Your task to perform on an android device: Open Reddit.com Image 0: 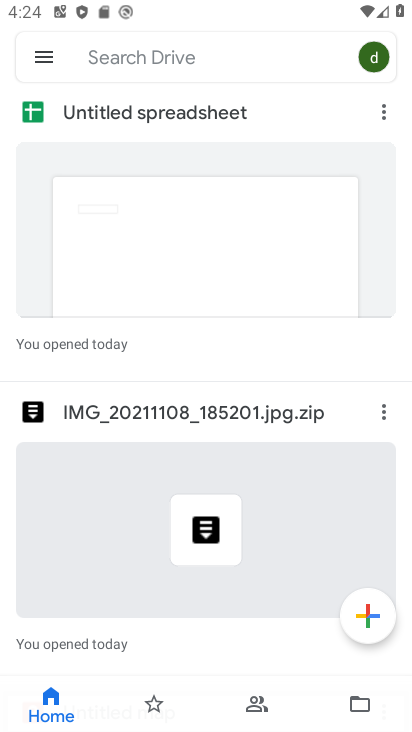
Step 0: press back button
Your task to perform on an android device: Open Reddit.com Image 1: 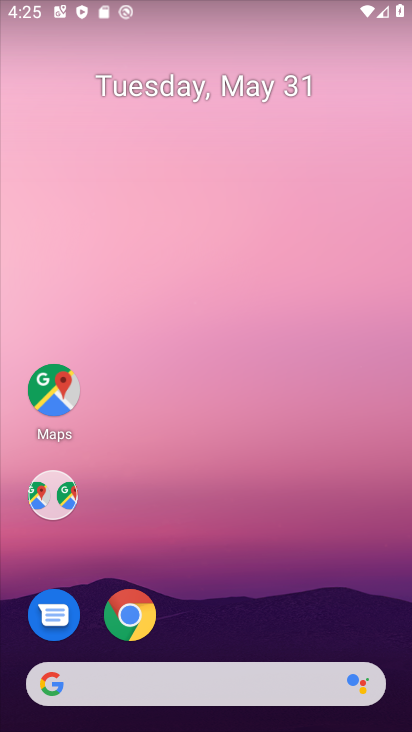
Step 1: drag from (232, 705) to (111, 226)
Your task to perform on an android device: Open Reddit.com Image 2: 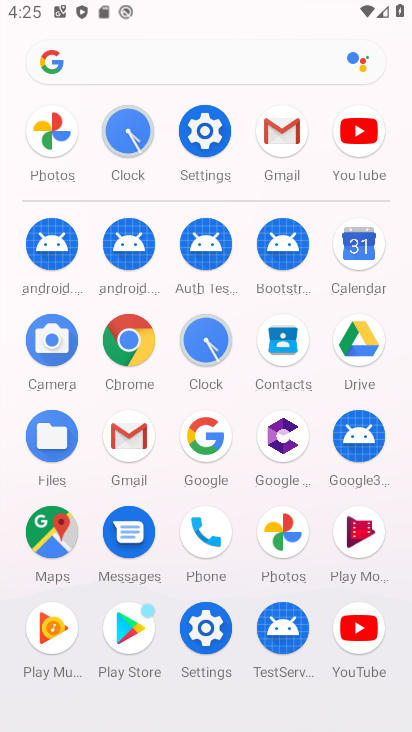
Step 2: click (130, 340)
Your task to perform on an android device: Open Reddit.com Image 3: 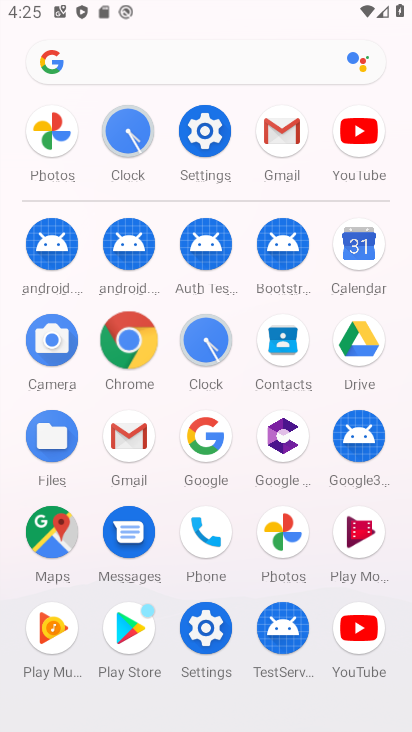
Step 3: click (130, 340)
Your task to perform on an android device: Open Reddit.com Image 4: 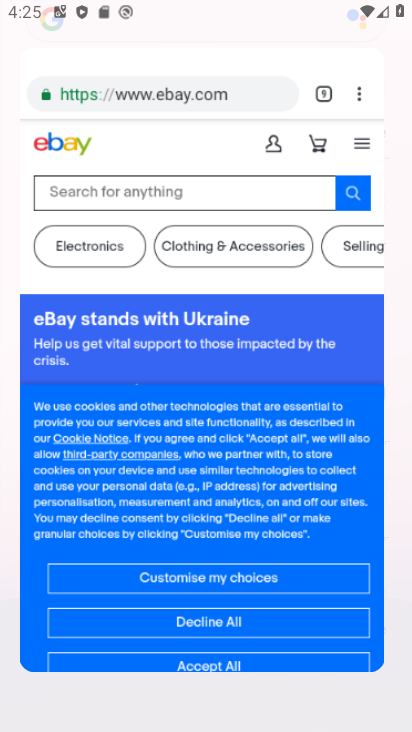
Step 4: click (130, 340)
Your task to perform on an android device: Open Reddit.com Image 5: 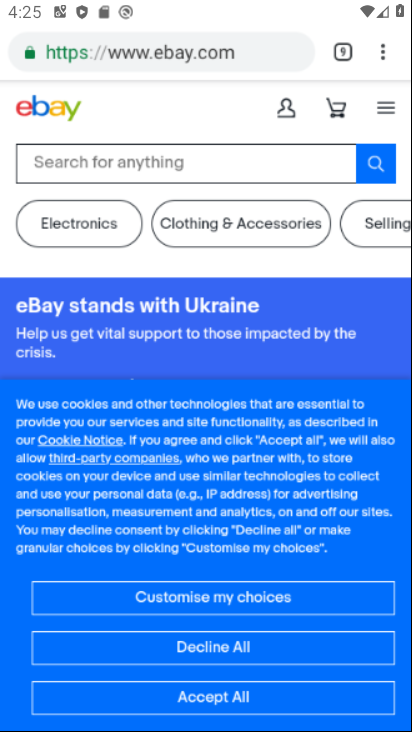
Step 5: click (130, 340)
Your task to perform on an android device: Open Reddit.com Image 6: 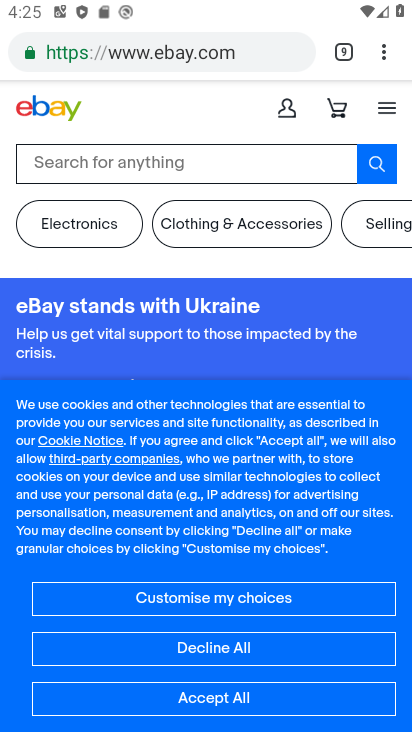
Step 6: press back button
Your task to perform on an android device: Open Reddit.com Image 7: 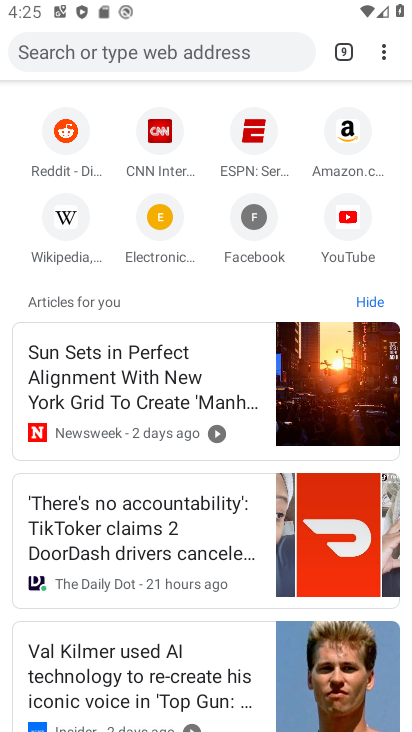
Step 7: drag from (386, 57) to (207, 105)
Your task to perform on an android device: Open Reddit.com Image 8: 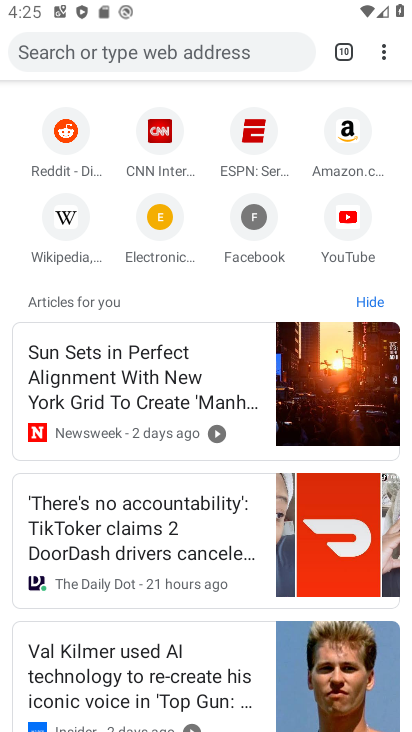
Step 8: click (60, 135)
Your task to perform on an android device: Open Reddit.com Image 9: 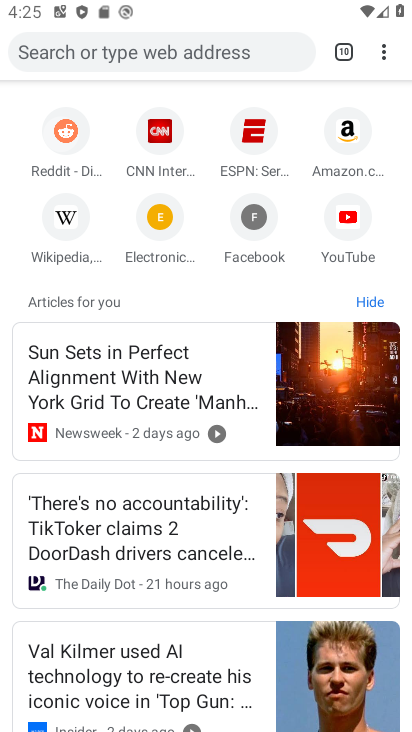
Step 9: click (61, 134)
Your task to perform on an android device: Open Reddit.com Image 10: 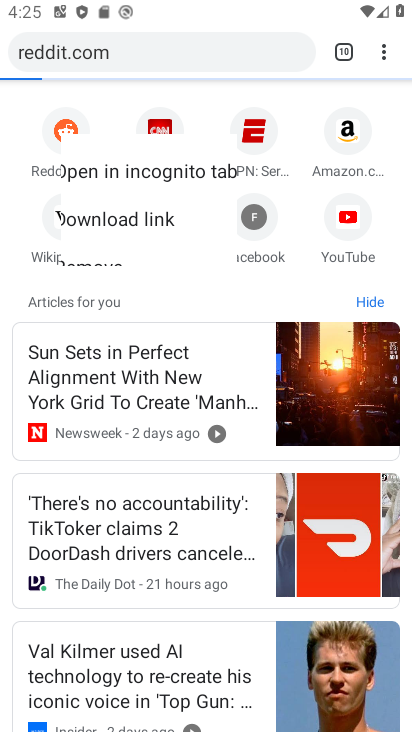
Step 10: click (67, 132)
Your task to perform on an android device: Open Reddit.com Image 11: 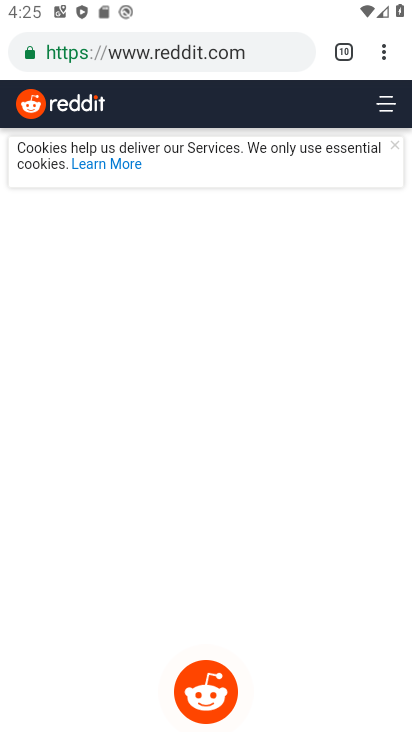
Step 11: task complete